Your task to perform on an android device: Do I have any events this weekend? Image 0: 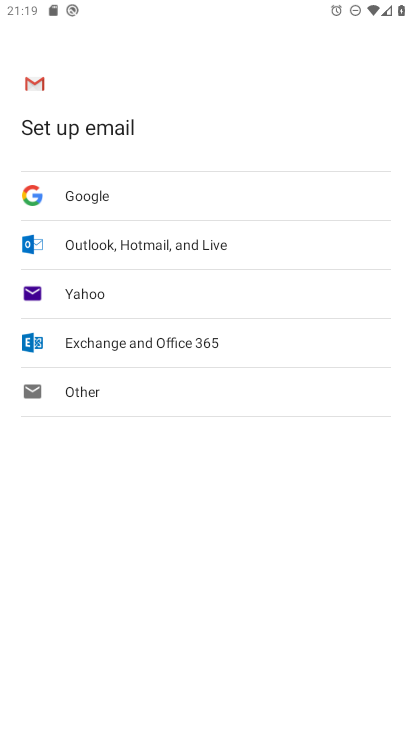
Step 0: press home button
Your task to perform on an android device: Do I have any events this weekend? Image 1: 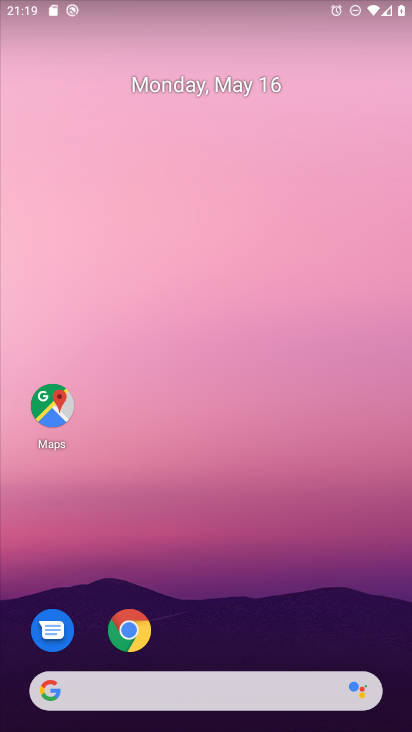
Step 1: click (221, 85)
Your task to perform on an android device: Do I have any events this weekend? Image 2: 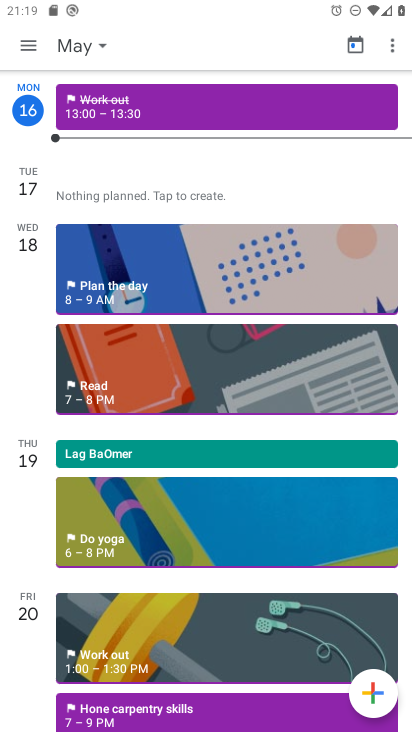
Step 2: task complete